Your task to perform on an android device: Open maps Image 0: 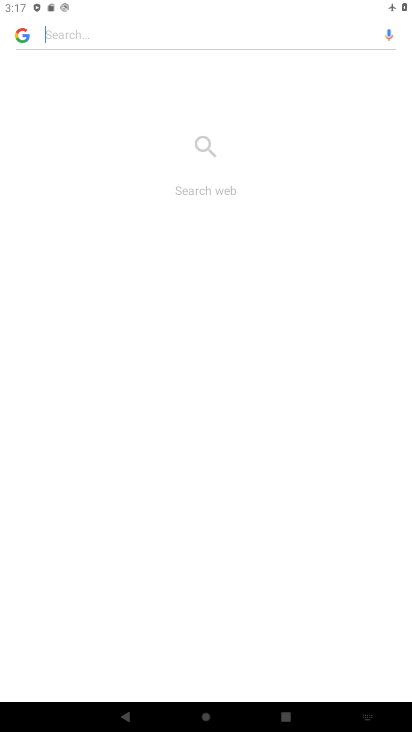
Step 0: press home button
Your task to perform on an android device: Open maps Image 1: 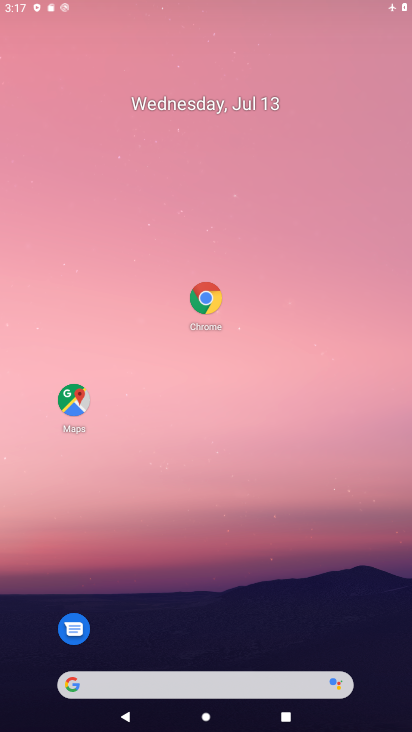
Step 1: drag from (174, 687) to (290, 136)
Your task to perform on an android device: Open maps Image 2: 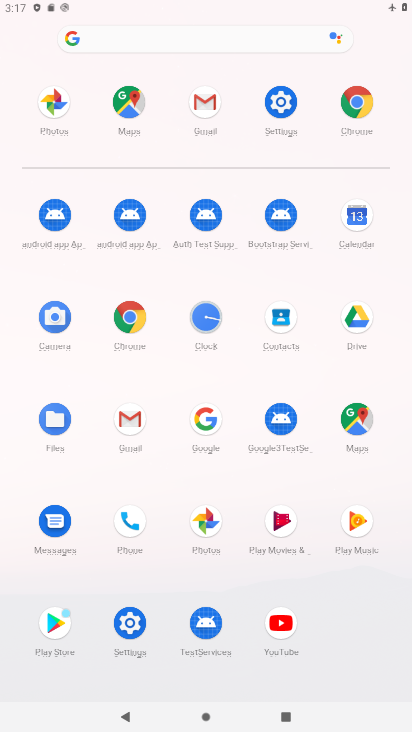
Step 2: click (132, 91)
Your task to perform on an android device: Open maps Image 3: 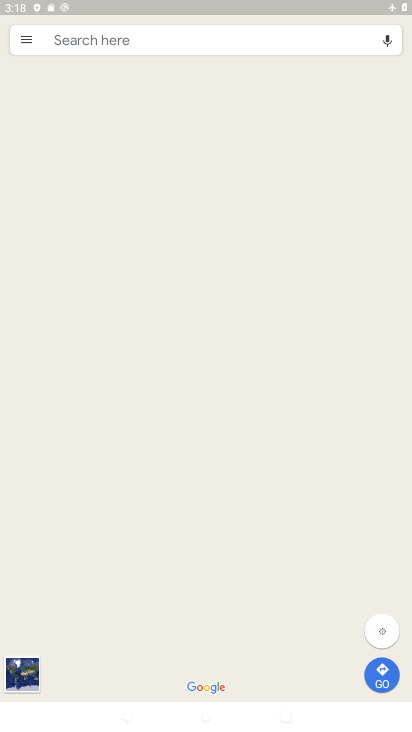
Step 3: task complete